Your task to perform on an android device: Open the web browser Image 0: 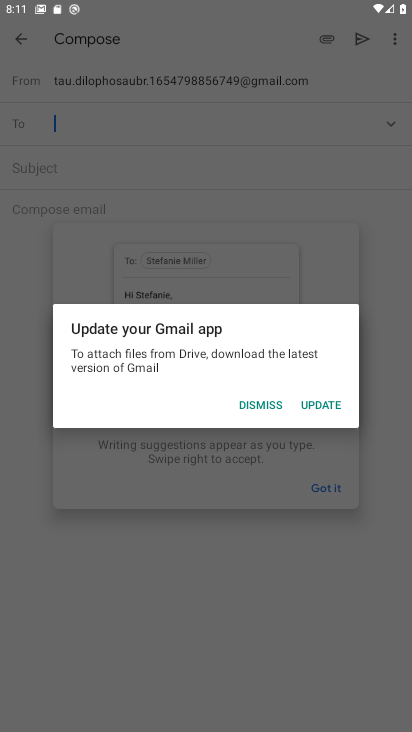
Step 0: press home button
Your task to perform on an android device: Open the web browser Image 1: 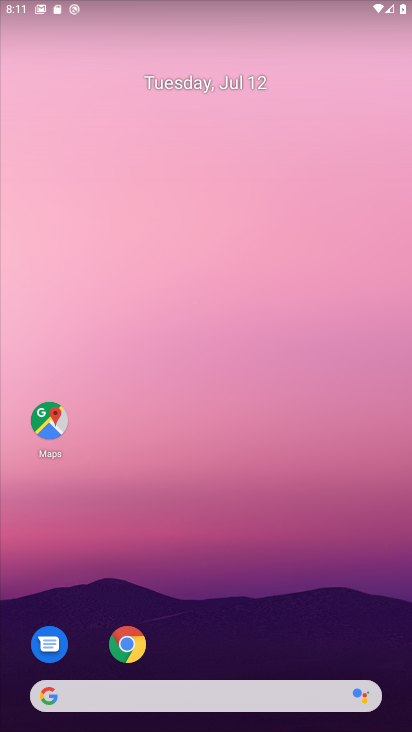
Step 1: drag from (141, 612) to (274, 149)
Your task to perform on an android device: Open the web browser Image 2: 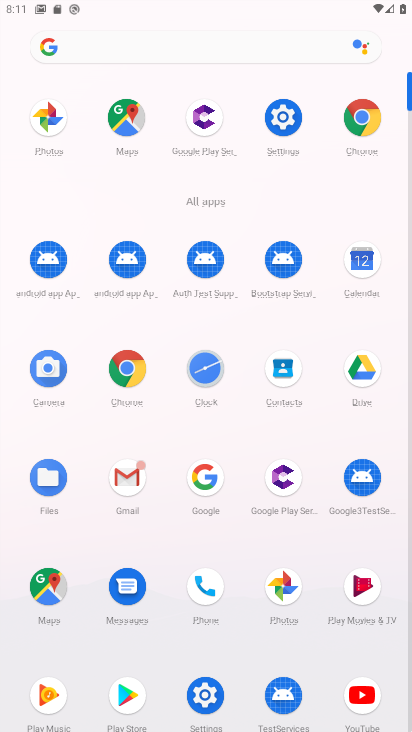
Step 2: click (371, 135)
Your task to perform on an android device: Open the web browser Image 3: 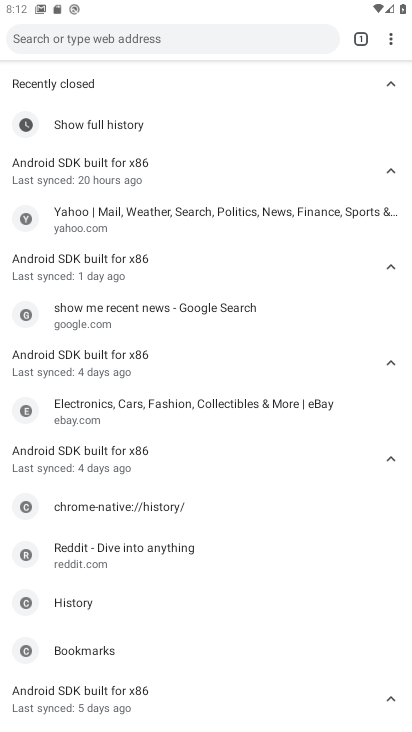
Step 3: task complete